Your task to perform on an android device: Open Google Chrome and open the bookmarks view Image 0: 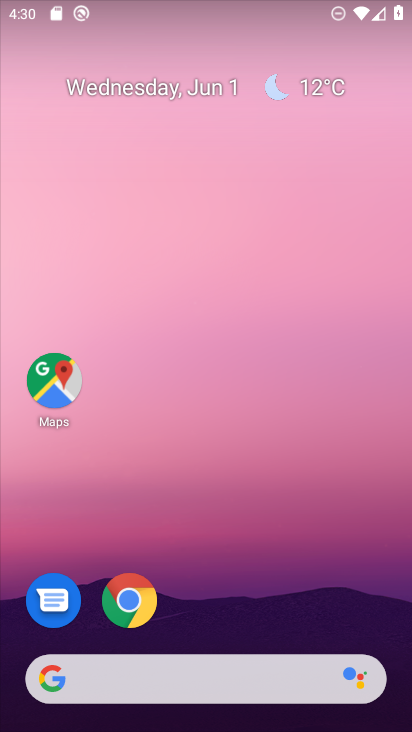
Step 0: click (128, 600)
Your task to perform on an android device: Open Google Chrome and open the bookmarks view Image 1: 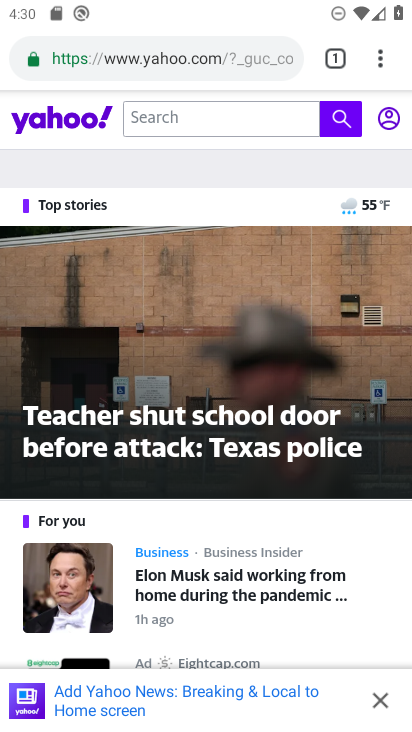
Step 1: click (379, 63)
Your task to perform on an android device: Open Google Chrome and open the bookmarks view Image 2: 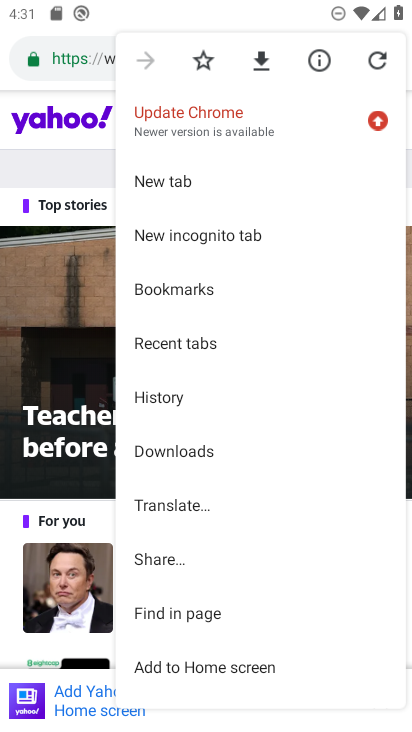
Step 2: click (166, 285)
Your task to perform on an android device: Open Google Chrome and open the bookmarks view Image 3: 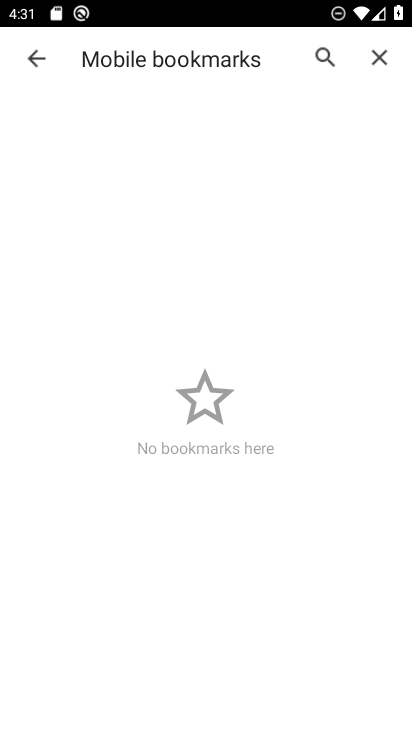
Step 3: task complete